Your task to perform on an android device: check battery use Image 0: 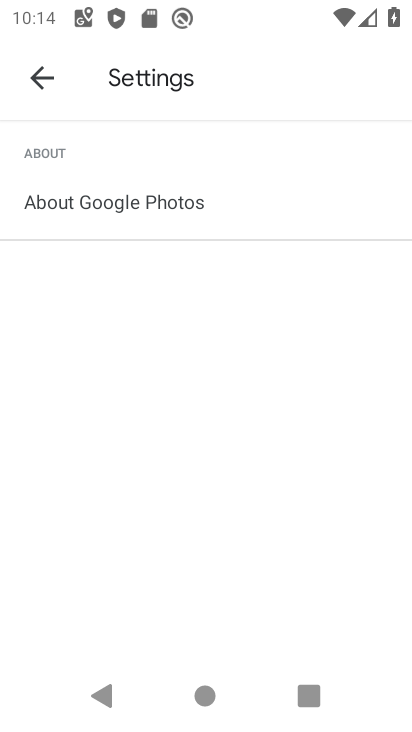
Step 0: press home button
Your task to perform on an android device: check battery use Image 1: 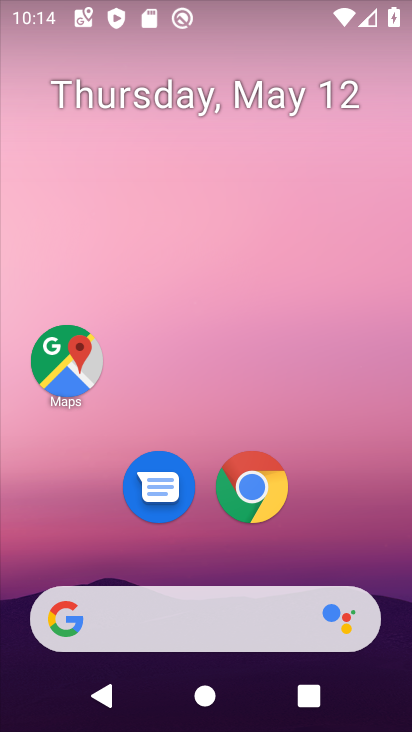
Step 1: drag from (13, 583) to (227, 171)
Your task to perform on an android device: check battery use Image 2: 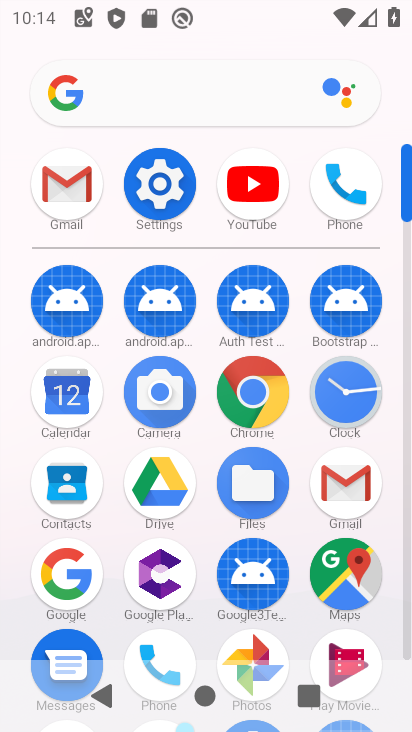
Step 2: click (144, 198)
Your task to perform on an android device: check battery use Image 3: 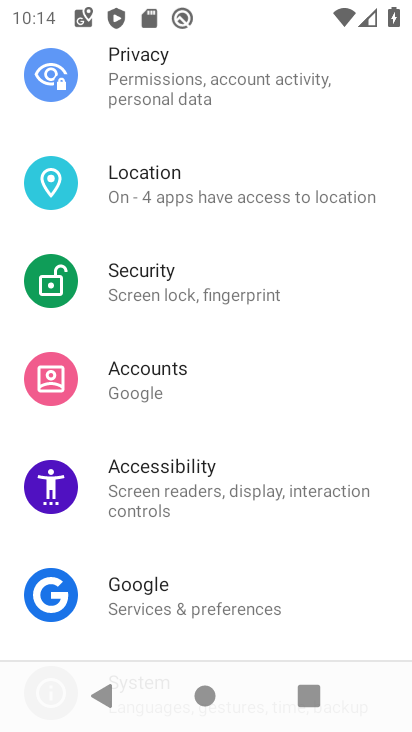
Step 3: drag from (188, 58) to (83, 542)
Your task to perform on an android device: check battery use Image 4: 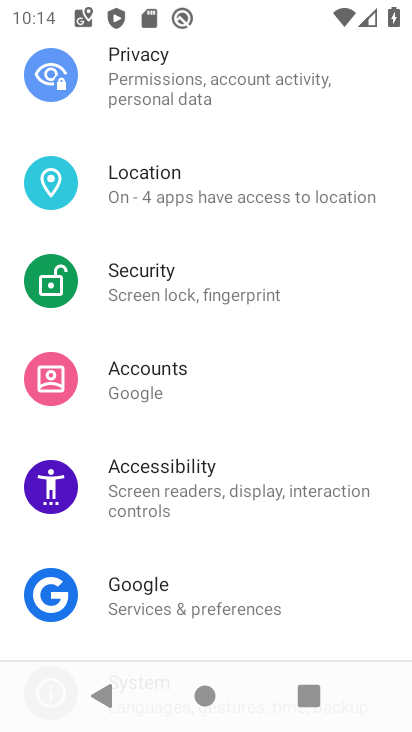
Step 4: drag from (259, 187) to (92, 711)
Your task to perform on an android device: check battery use Image 5: 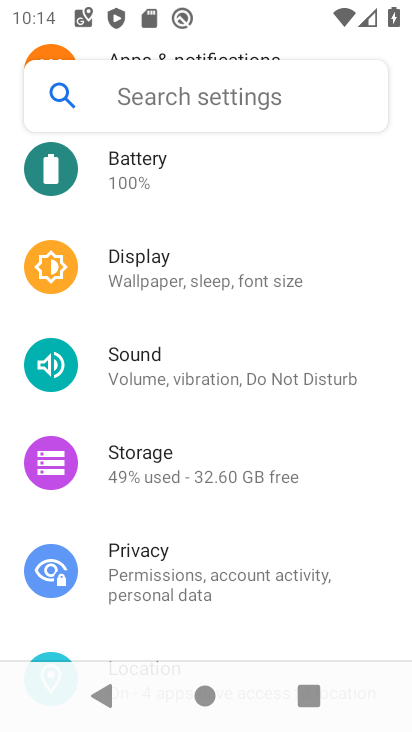
Step 5: click (156, 159)
Your task to perform on an android device: check battery use Image 6: 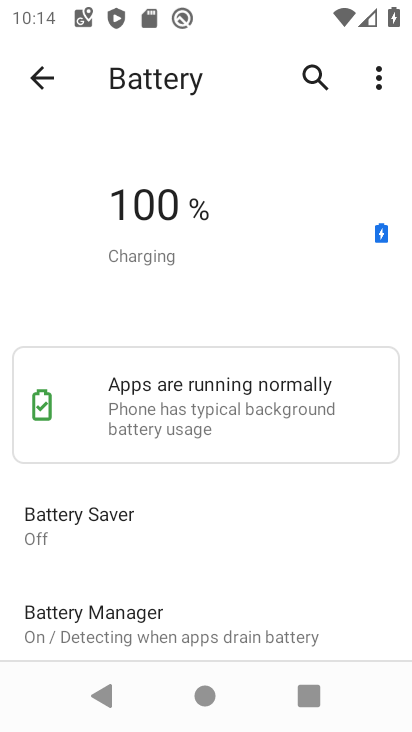
Step 6: drag from (120, 632) to (307, 129)
Your task to perform on an android device: check battery use Image 7: 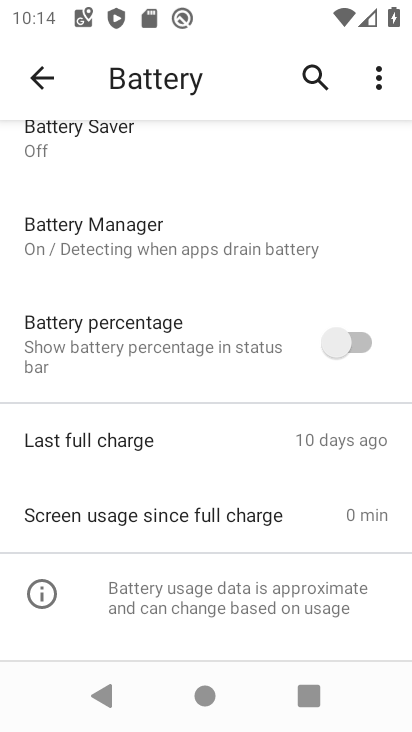
Step 7: drag from (69, 546) to (278, 266)
Your task to perform on an android device: check battery use Image 8: 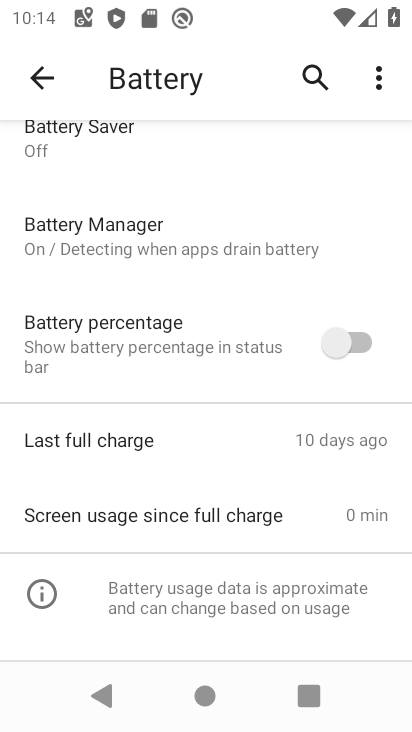
Step 8: click (193, 517)
Your task to perform on an android device: check battery use Image 9: 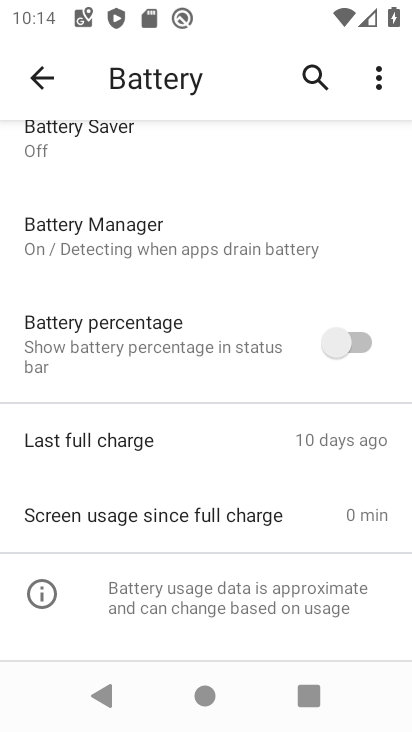
Step 9: task complete